Your task to perform on an android device: allow notifications from all sites in the chrome app Image 0: 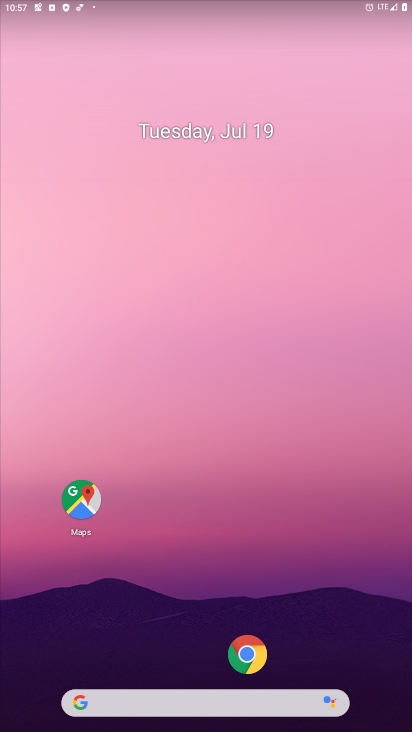
Step 0: click (243, 659)
Your task to perform on an android device: allow notifications from all sites in the chrome app Image 1: 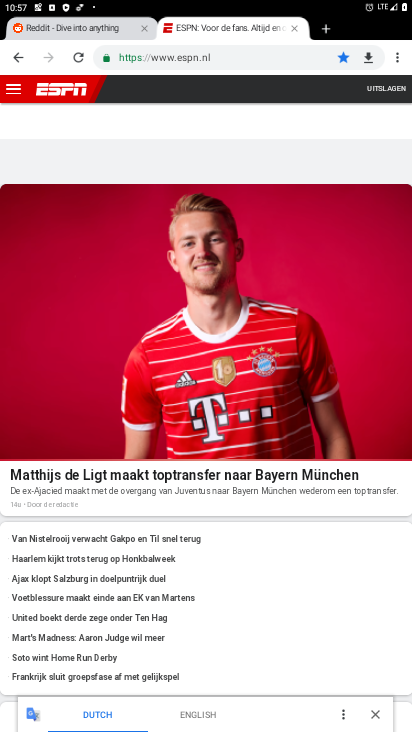
Step 1: click (404, 53)
Your task to perform on an android device: allow notifications from all sites in the chrome app Image 2: 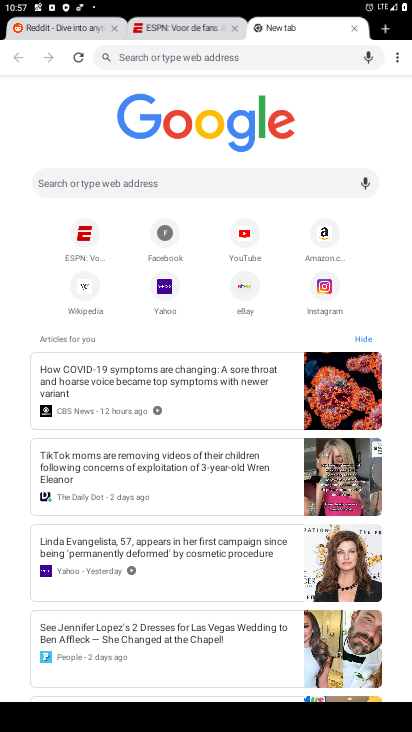
Step 2: click (402, 53)
Your task to perform on an android device: allow notifications from all sites in the chrome app Image 3: 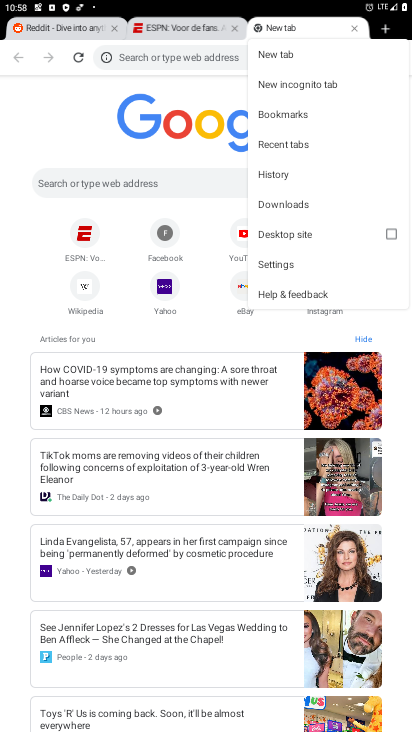
Step 3: click (320, 261)
Your task to perform on an android device: allow notifications from all sites in the chrome app Image 4: 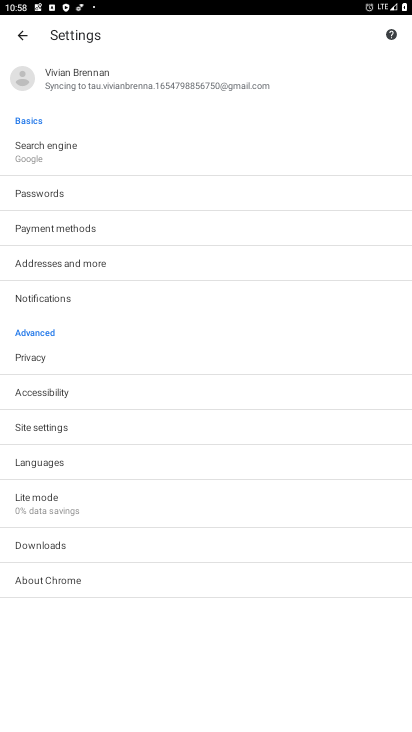
Step 4: click (54, 307)
Your task to perform on an android device: allow notifications from all sites in the chrome app Image 5: 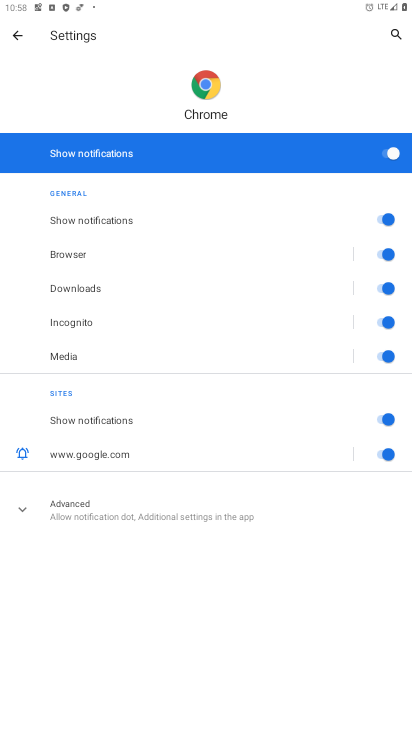
Step 5: task complete